Your task to perform on an android device: Open eBay Image 0: 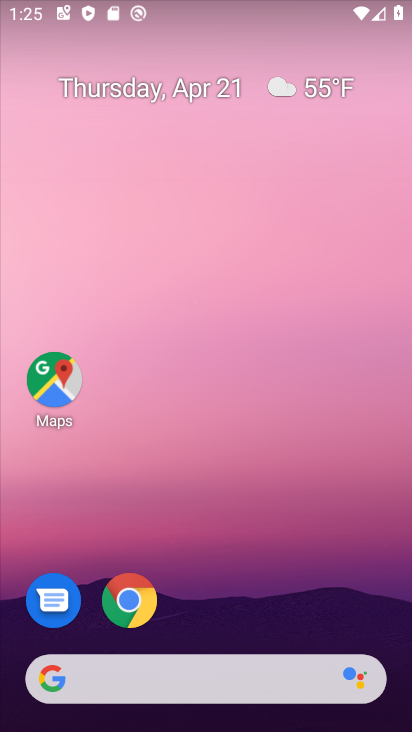
Step 0: click (144, 602)
Your task to perform on an android device: Open eBay Image 1: 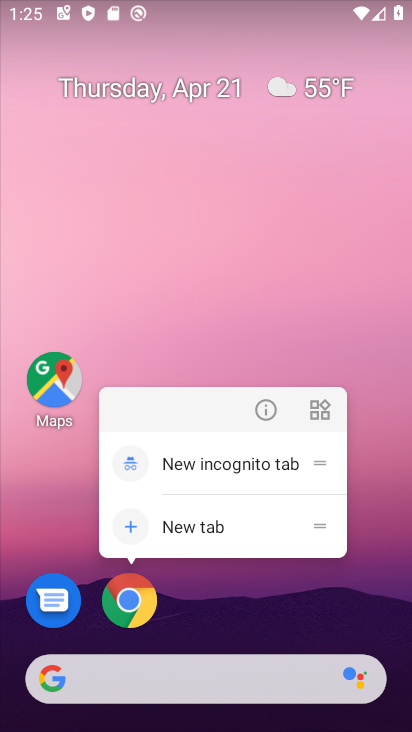
Step 1: click (140, 600)
Your task to perform on an android device: Open eBay Image 2: 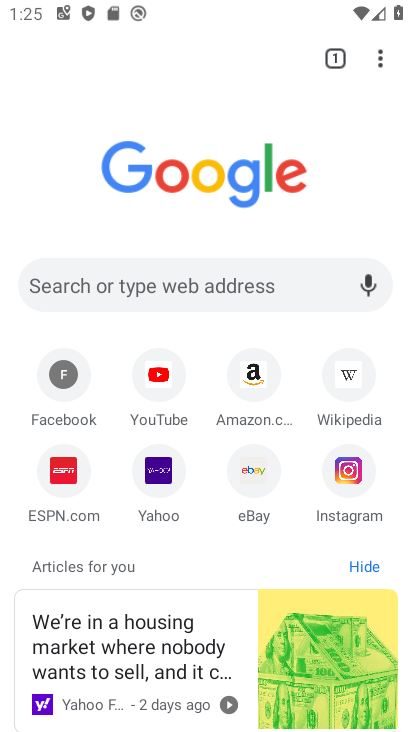
Step 2: click (145, 293)
Your task to perform on an android device: Open eBay Image 3: 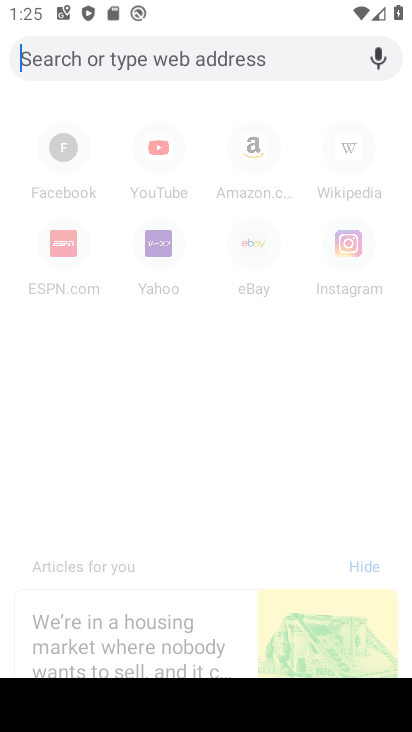
Step 3: type "ebay"
Your task to perform on an android device: Open eBay Image 4: 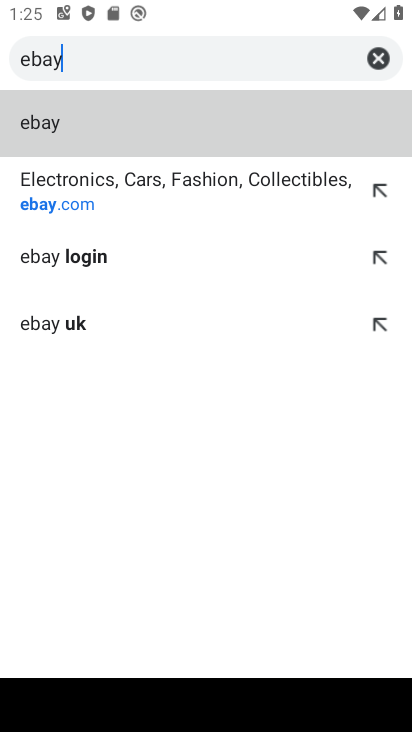
Step 4: click (54, 203)
Your task to perform on an android device: Open eBay Image 5: 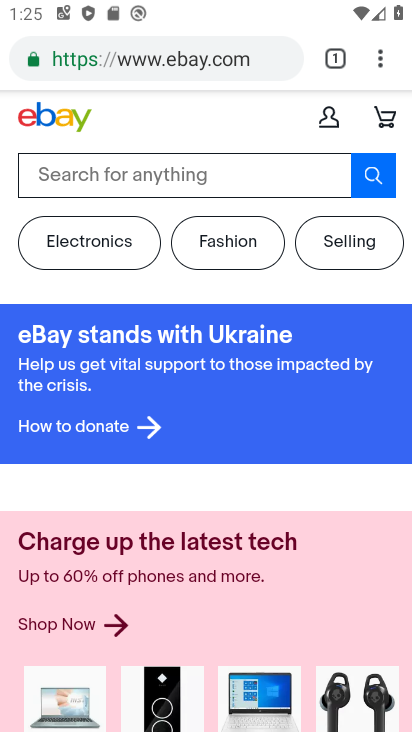
Step 5: task complete